Your task to perform on an android device: open sync settings in chrome Image 0: 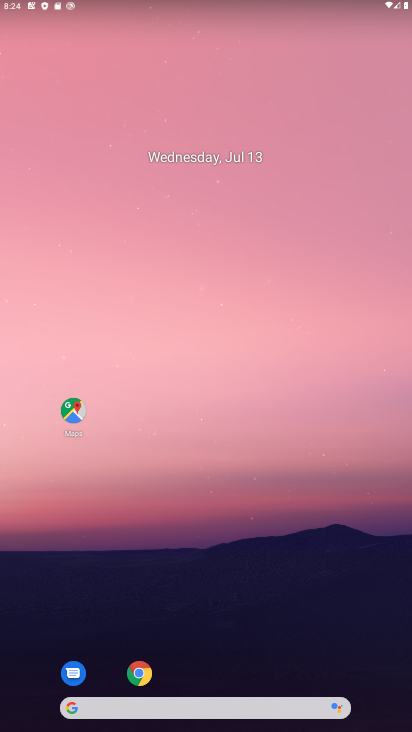
Step 0: drag from (237, 661) to (196, 105)
Your task to perform on an android device: open sync settings in chrome Image 1: 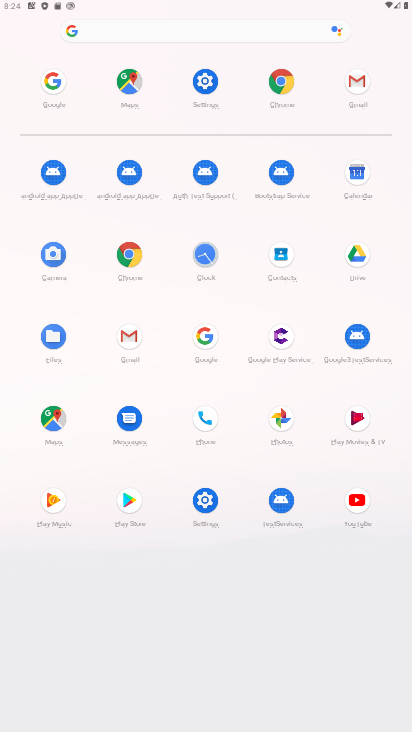
Step 1: click (129, 251)
Your task to perform on an android device: open sync settings in chrome Image 2: 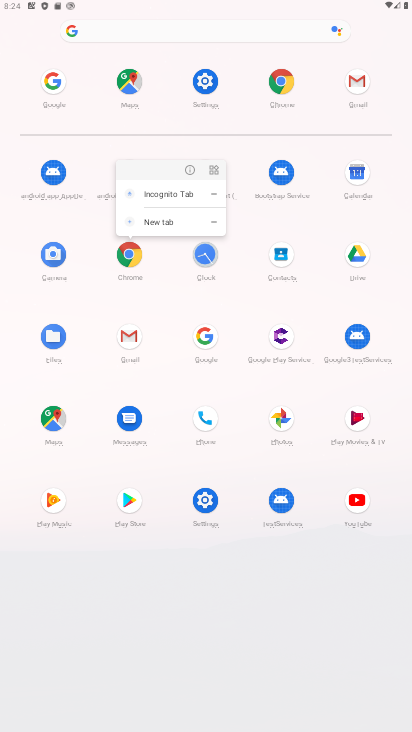
Step 2: click (129, 251)
Your task to perform on an android device: open sync settings in chrome Image 3: 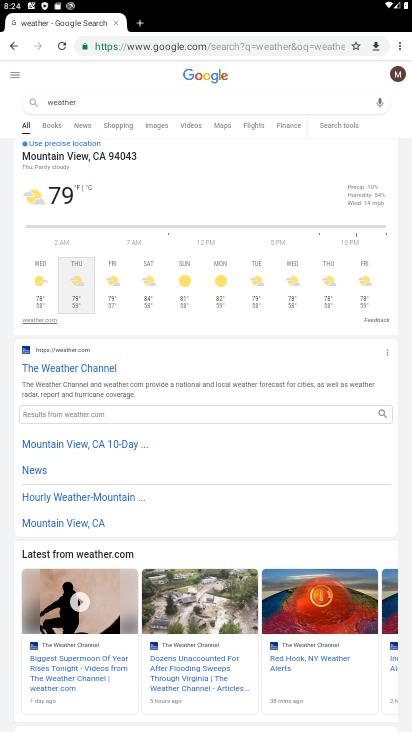
Step 3: drag from (405, 44) to (315, 306)
Your task to perform on an android device: open sync settings in chrome Image 4: 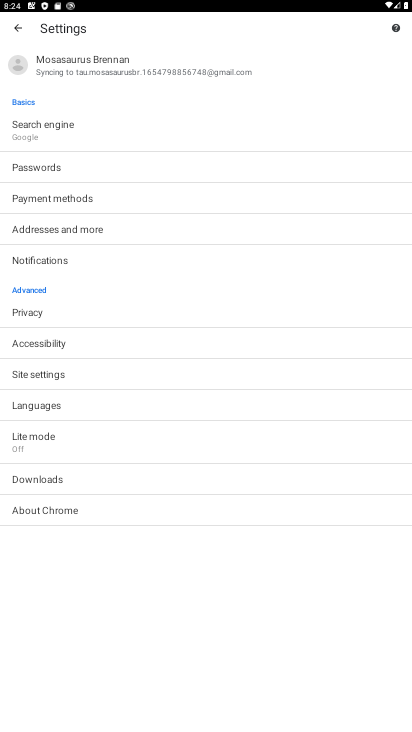
Step 4: click (78, 67)
Your task to perform on an android device: open sync settings in chrome Image 5: 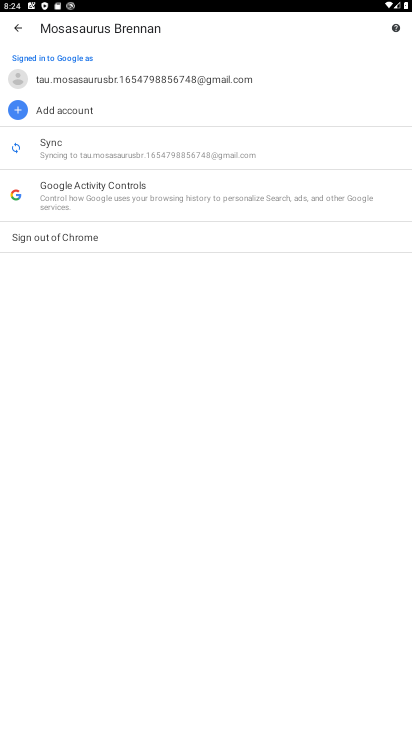
Step 5: click (87, 148)
Your task to perform on an android device: open sync settings in chrome Image 6: 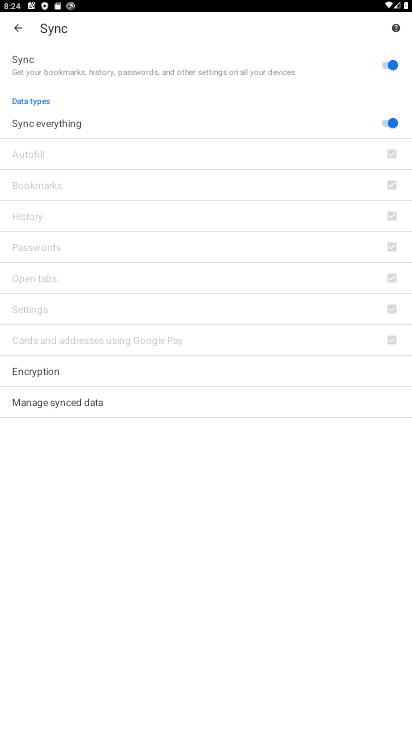
Step 6: task complete